Your task to perform on an android device: star an email in the gmail app Image 0: 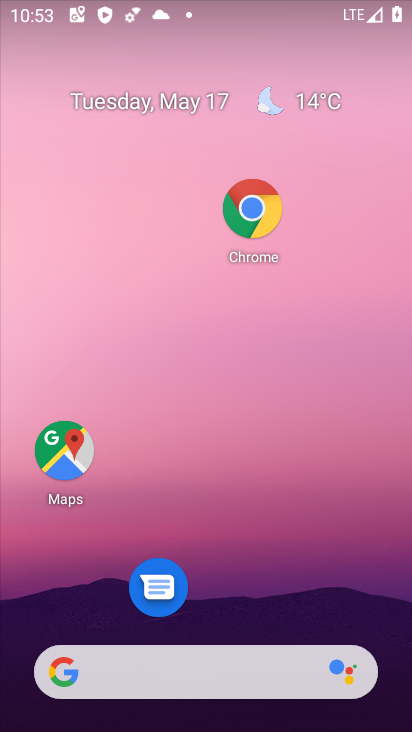
Step 0: drag from (299, 554) to (261, 329)
Your task to perform on an android device: star an email in the gmail app Image 1: 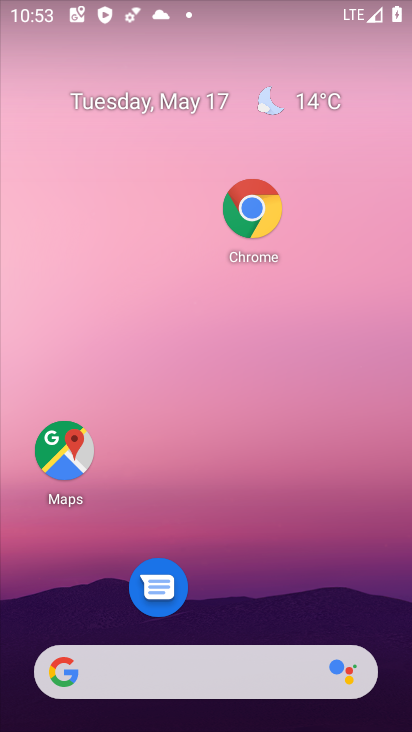
Step 1: drag from (273, 582) to (139, 88)
Your task to perform on an android device: star an email in the gmail app Image 2: 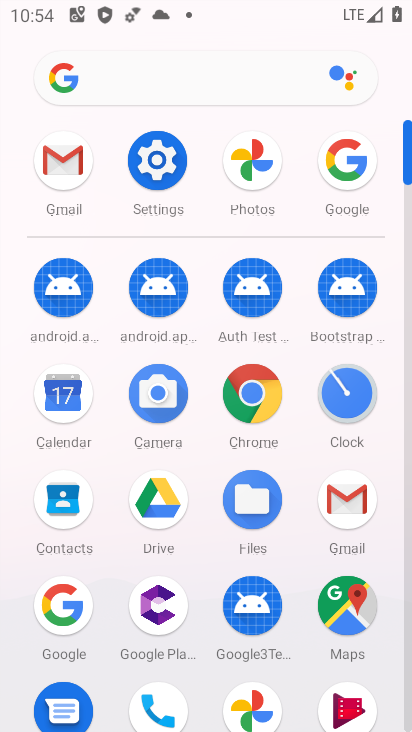
Step 2: click (342, 506)
Your task to perform on an android device: star an email in the gmail app Image 3: 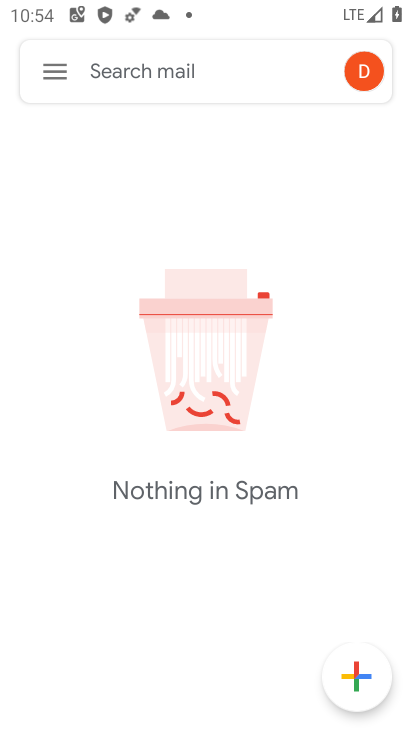
Step 3: click (53, 71)
Your task to perform on an android device: star an email in the gmail app Image 4: 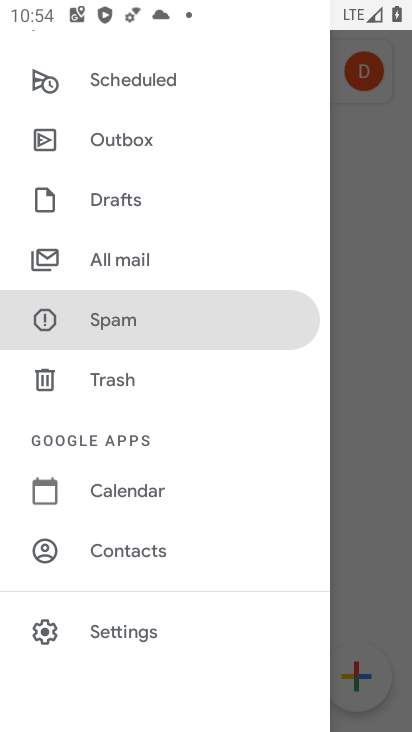
Step 4: drag from (184, 190) to (194, 591)
Your task to perform on an android device: star an email in the gmail app Image 5: 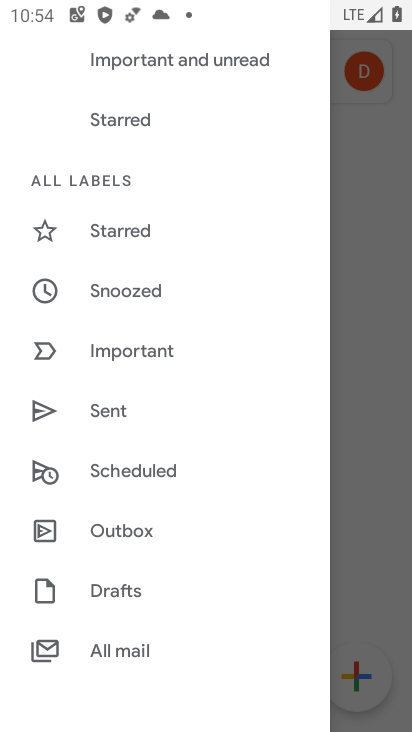
Step 5: click (133, 645)
Your task to perform on an android device: star an email in the gmail app Image 6: 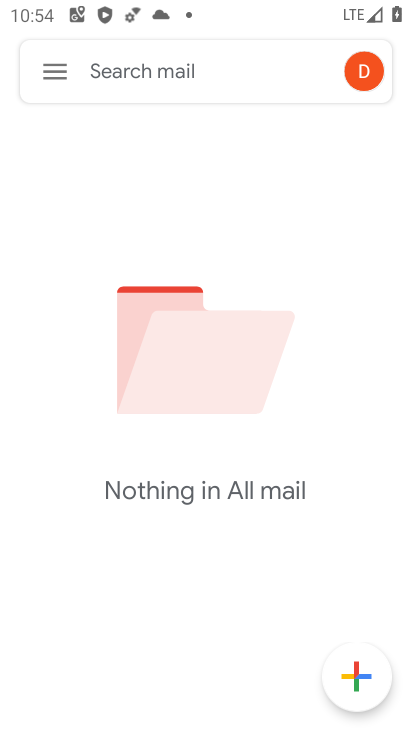
Step 6: task complete